Your task to perform on an android device: Open the calendar app, open the side menu, and click the "Day" option Image 0: 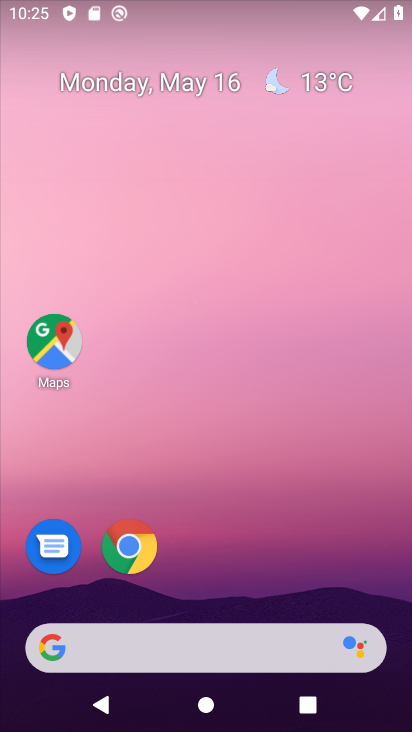
Step 0: drag from (317, 451) to (380, 1)
Your task to perform on an android device: Open the calendar app, open the side menu, and click the "Day" option Image 1: 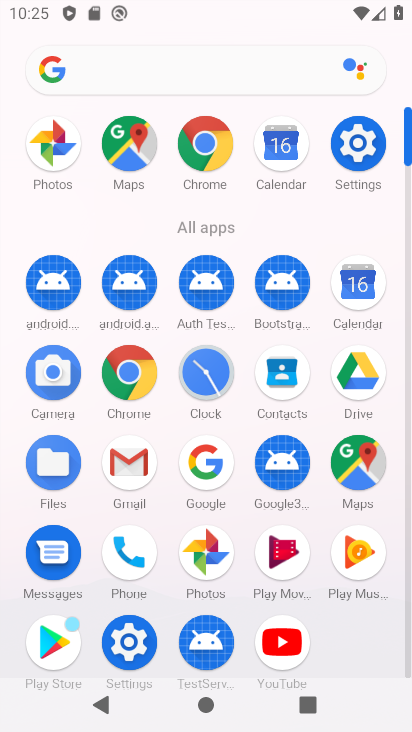
Step 1: click (279, 161)
Your task to perform on an android device: Open the calendar app, open the side menu, and click the "Day" option Image 2: 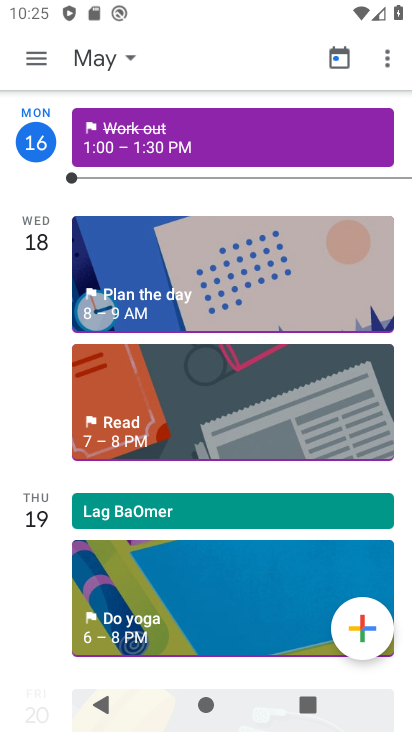
Step 2: click (44, 68)
Your task to perform on an android device: Open the calendar app, open the side menu, and click the "Day" option Image 3: 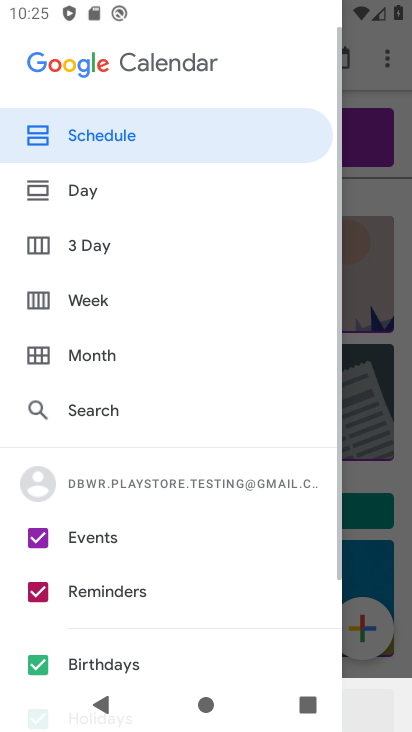
Step 3: click (102, 194)
Your task to perform on an android device: Open the calendar app, open the side menu, and click the "Day" option Image 4: 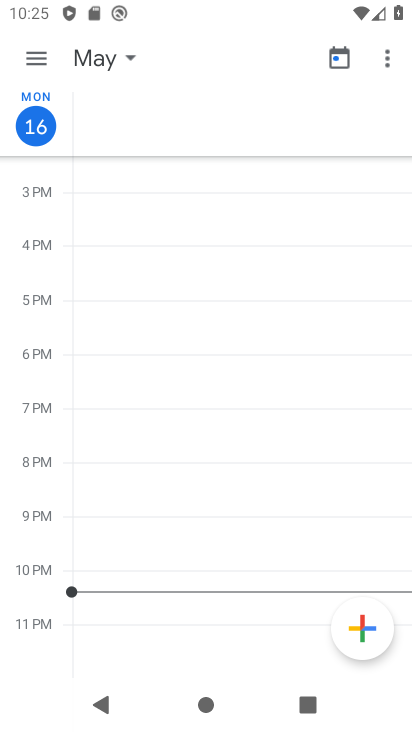
Step 4: task complete